Your task to perform on an android device: Open calendar and show me the fourth week of next month Image 0: 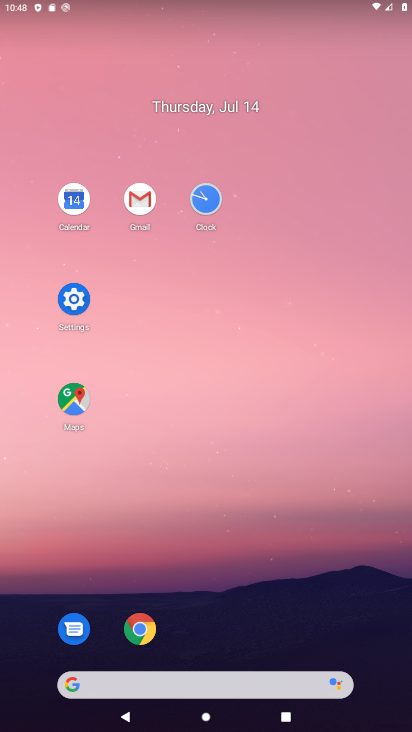
Step 0: click (66, 198)
Your task to perform on an android device: Open calendar and show me the fourth week of next month Image 1: 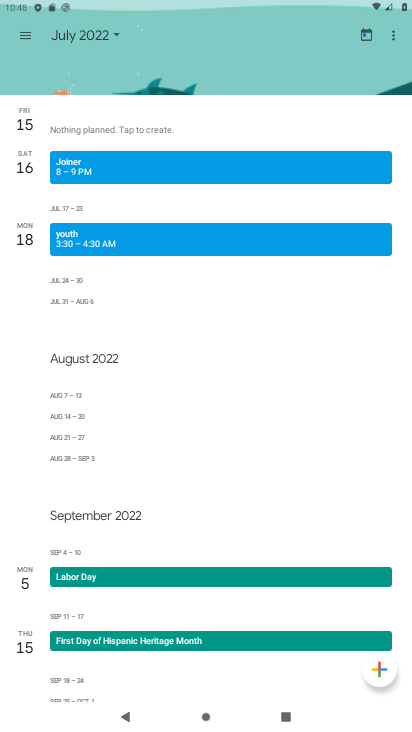
Step 1: click (32, 28)
Your task to perform on an android device: Open calendar and show me the fourth week of next month Image 2: 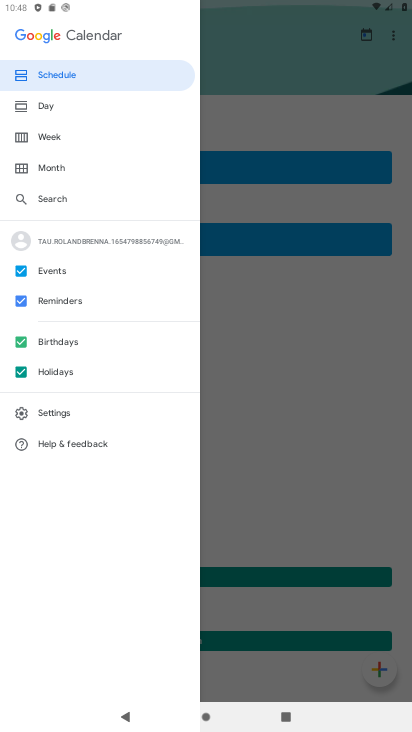
Step 2: click (41, 139)
Your task to perform on an android device: Open calendar and show me the fourth week of next month Image 3: 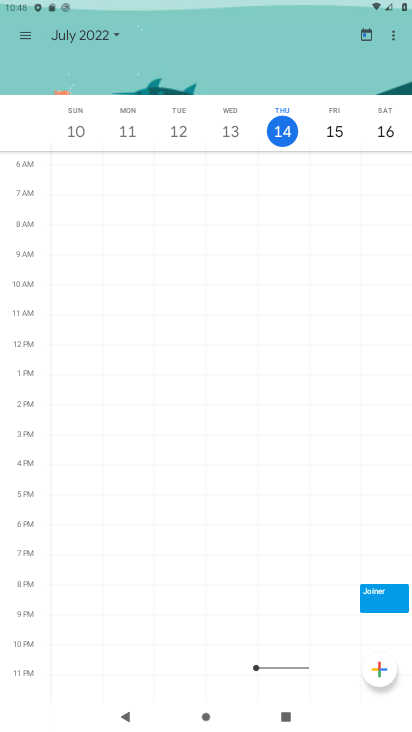
Step 3: click (101, 35)
Your task to perform on an android device: Open calendar and show me the fourth week of next month Image 4: 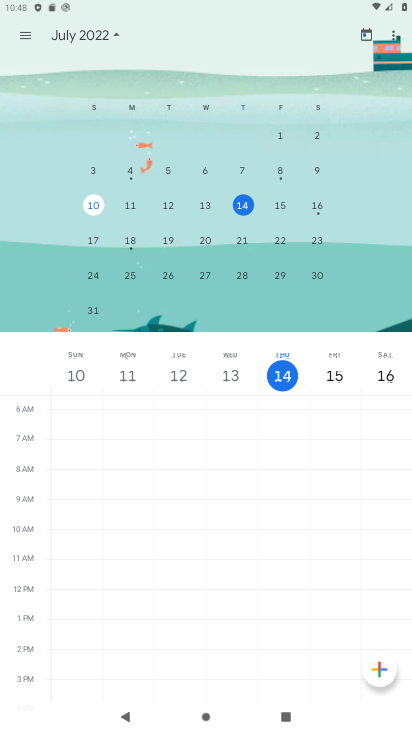
Step 4: drag from (314, 196) to (30, 181)
Your task to perform on an android device: Open calendar and show me the fourth week of next month Image 5: 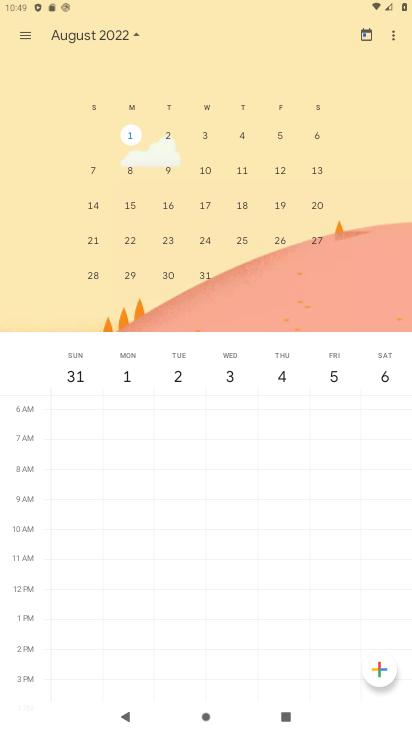
Step 5: click (34, 39)
Your task to perform on an android device: Open calendar and show me the fourth week of next month Image 6: 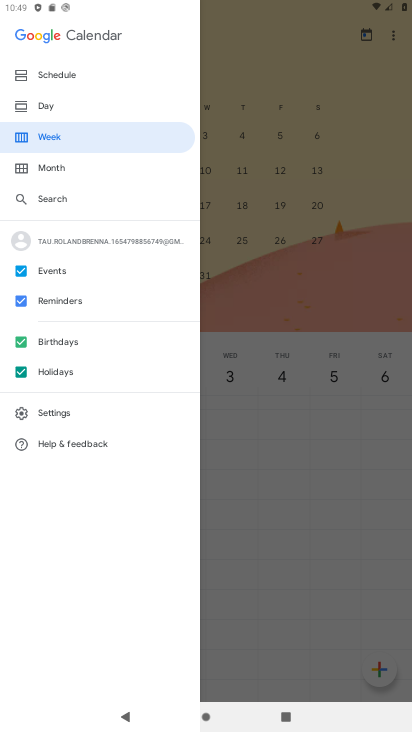
Step 6: click (76, 144)
Your task to perform on an android device: Open calendar and show me the fourth week of next month Image 7: 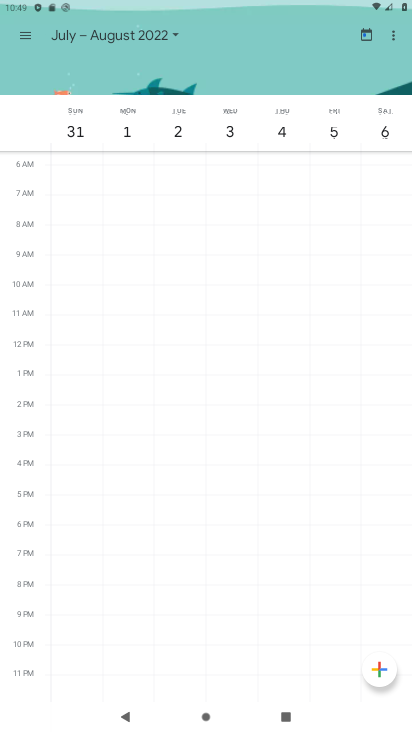
Step 7: task complete